Your task to perform on an android device: Check the news Image 0: 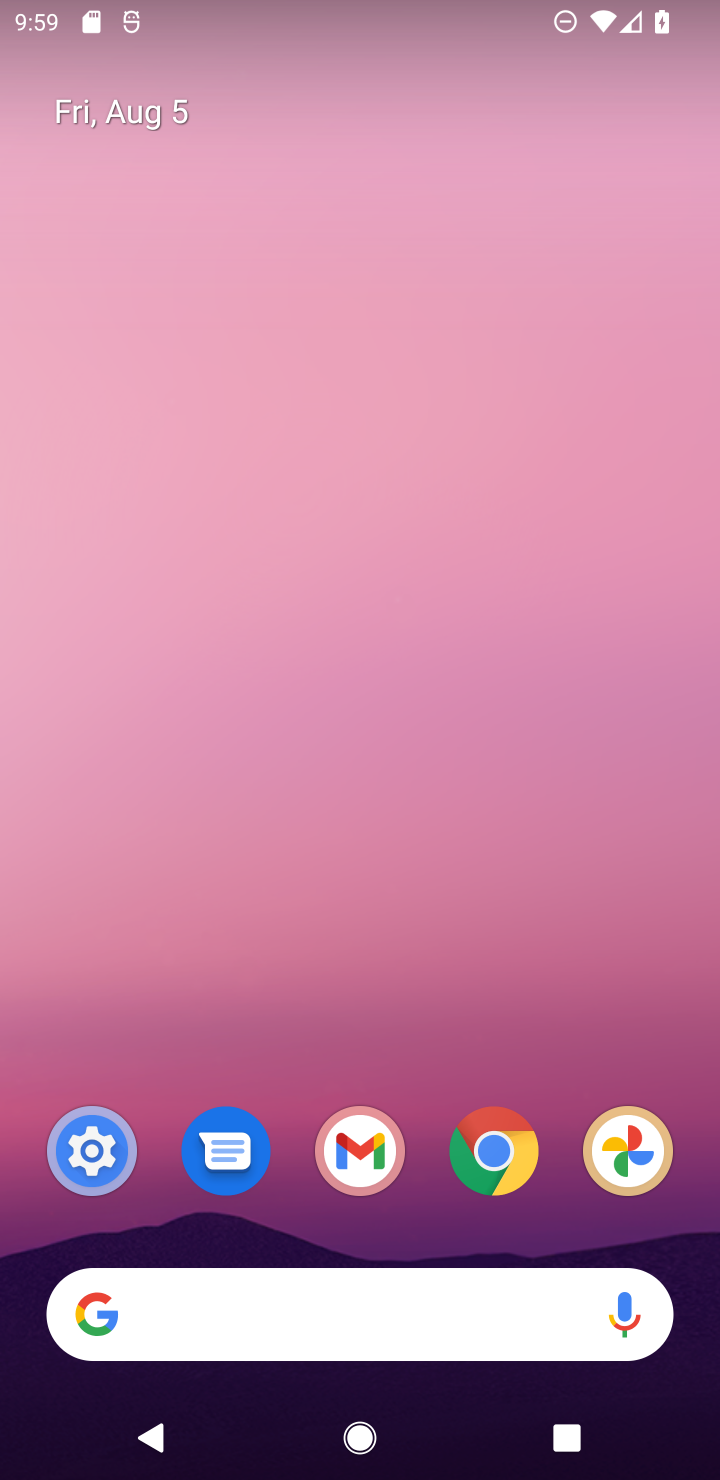
Step 0: click (332, 1301)
Your task to perform on an android device: Check the news Image 1: 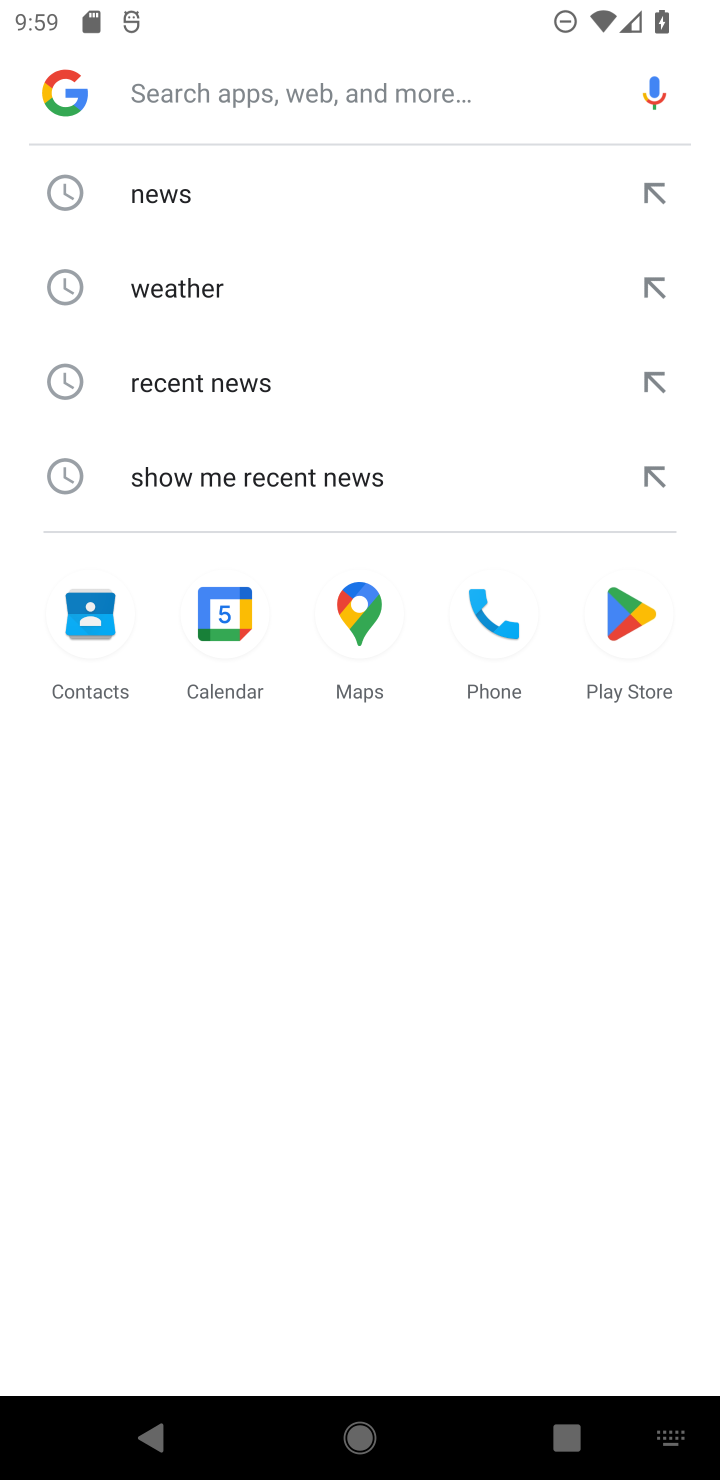
Step 1: click (183, 179)
Your task to perform on an android device: Check the news Image 2: 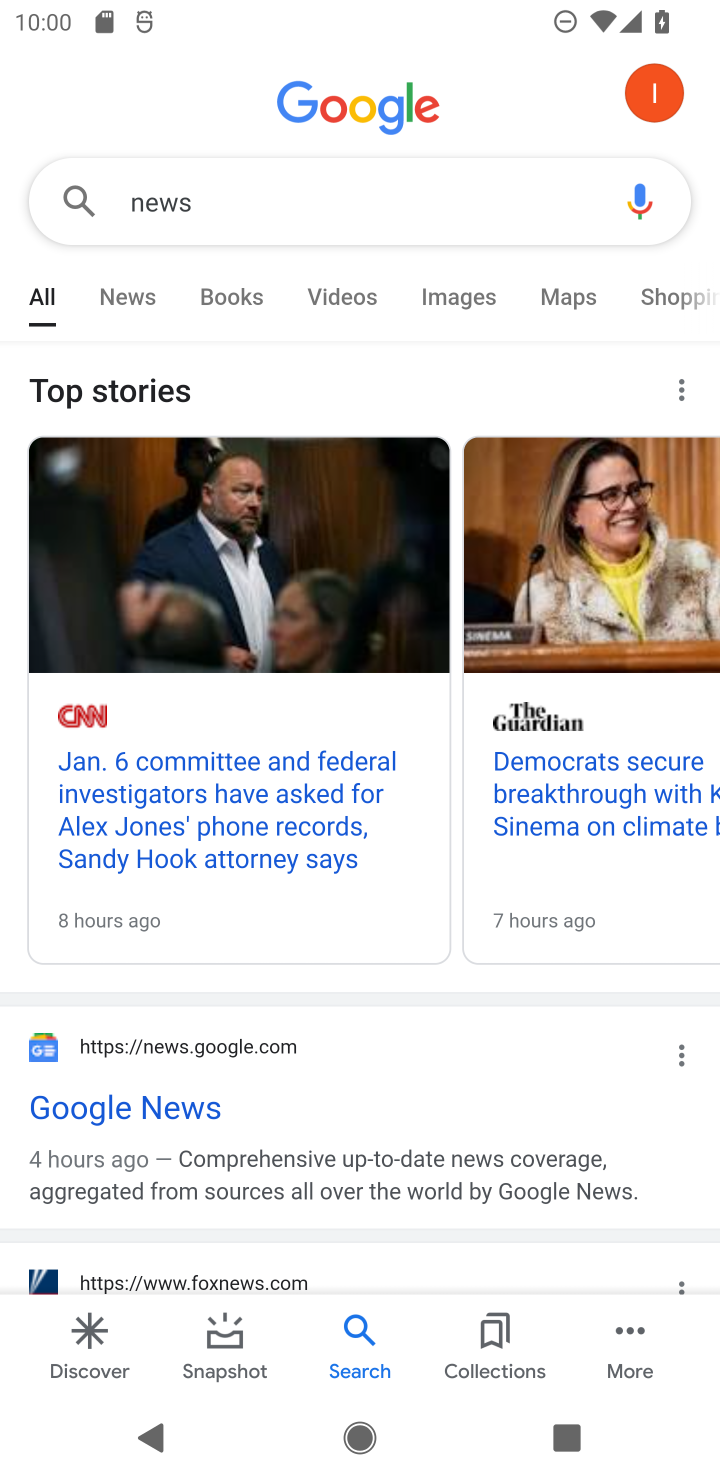
Step 2: task complete